Your task to perform on an android device: change the clock display to analog Image 0: 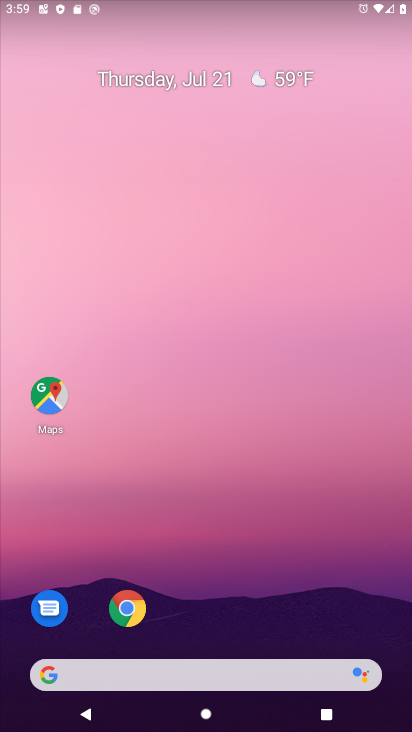
Step 0: drag from (282, 678) to (362, 64)
Your task to perform on an android device: change the clock display to analog Image 1: 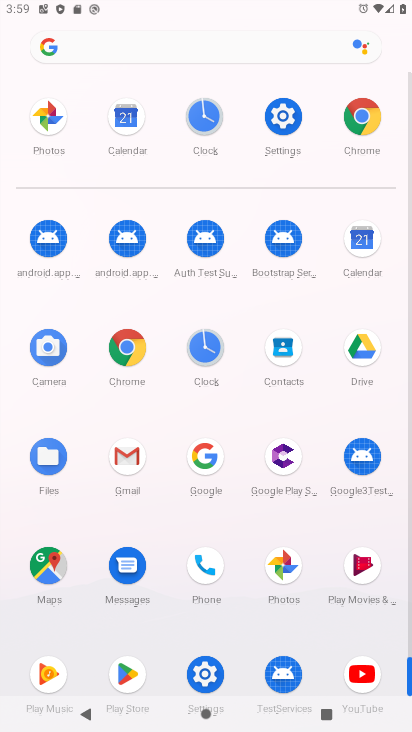
Step 1: click (206, 351)
Your task to perform on an android device: change the clock display to analog Image 2: 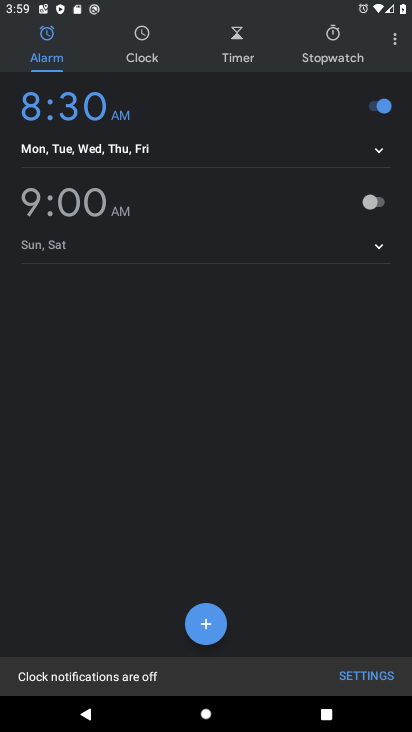
Step 2: drag from (396, 40) to (336, 72)
Your task to perform on an android device: change the clock display to analog Image 3: 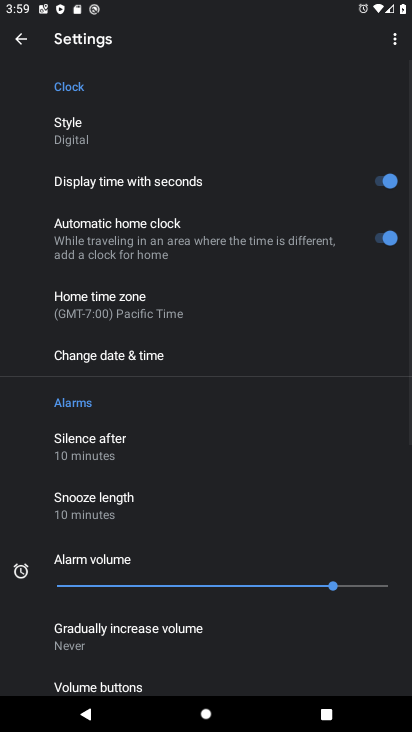
Step 3: click (91, 128)
Your task to perform on an android device: change the clock display to analog Image 4: 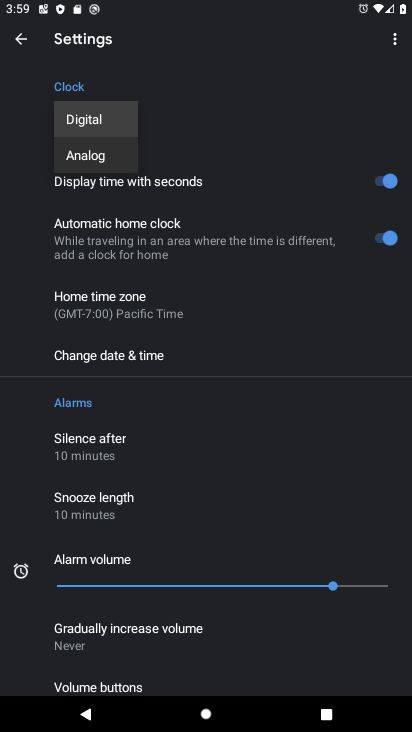
Step 4: click (85, 151)
Your task to perform on an android device: change the clock display to analog Image 5: 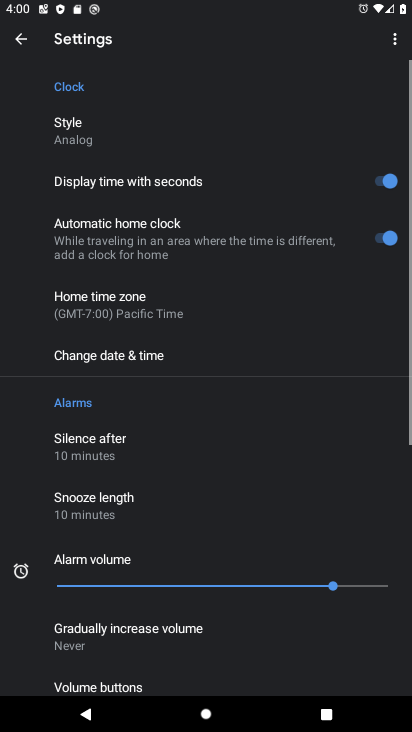
Step 5: task complete